Your task to perform on an android device: turn off smart reply in the gmail app Image 0: 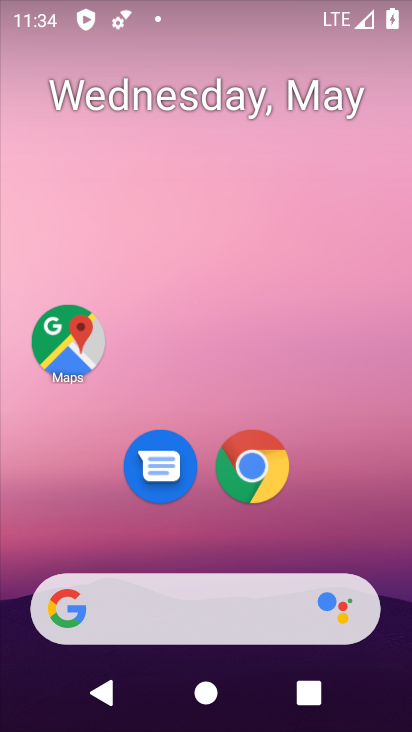
Step 0: drag from (236, 537) to (199, 28)
Your task to perform on an android device: turn off smart reply in the gmail app Image 1: 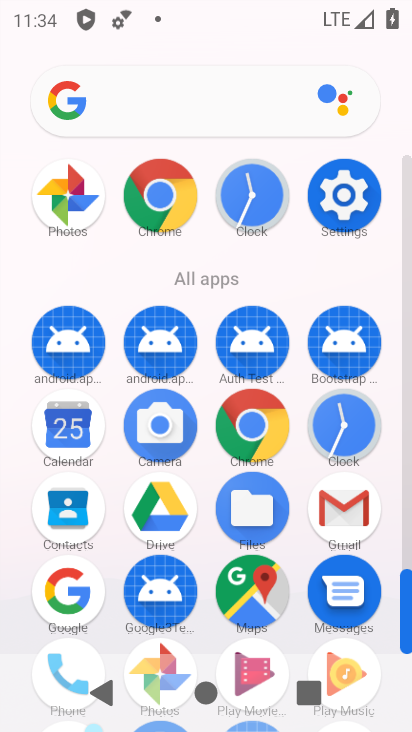
Step 1: click (354, 513)
Your task to perform on an android device: turn off smart reply in the gmail app Image 2: 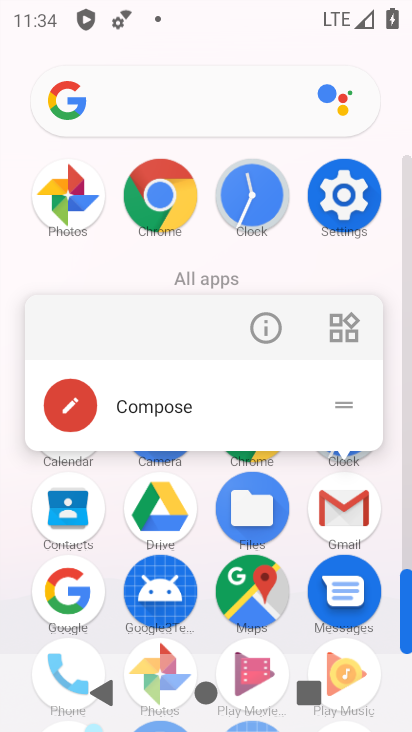
Step 2: click (334, 499)
Your task to perform on an android device: turn off smart reply in the gmail app Image 3: 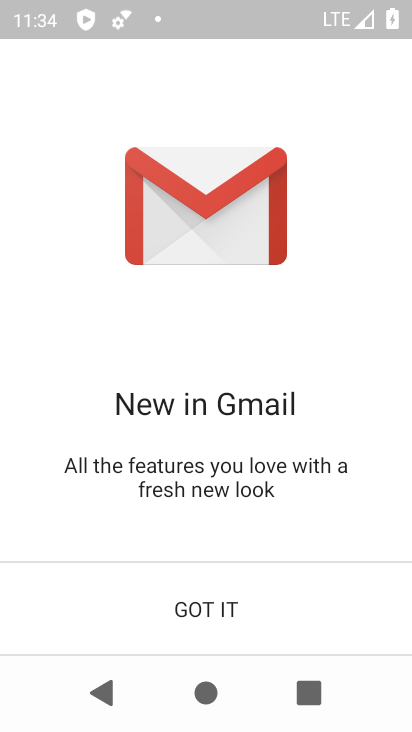
Step 3: click (261, 599)
Your task to perform on an android device: turn off smart reply in the gmail app Image 4: 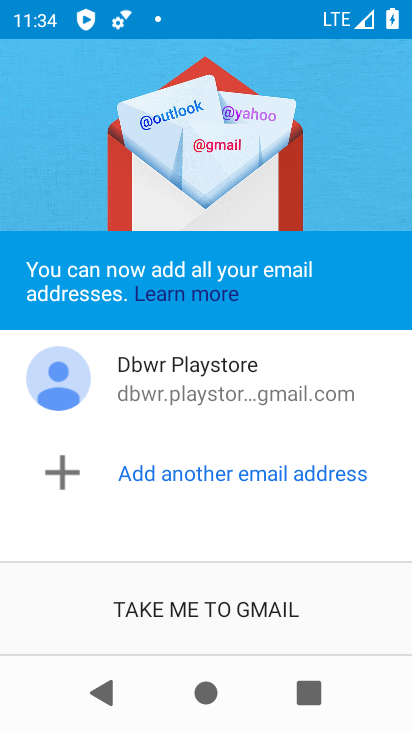
Step 4: click (229, 631)
Your task to perform on an android device: turn off smart reply in the gmail app Image 5: 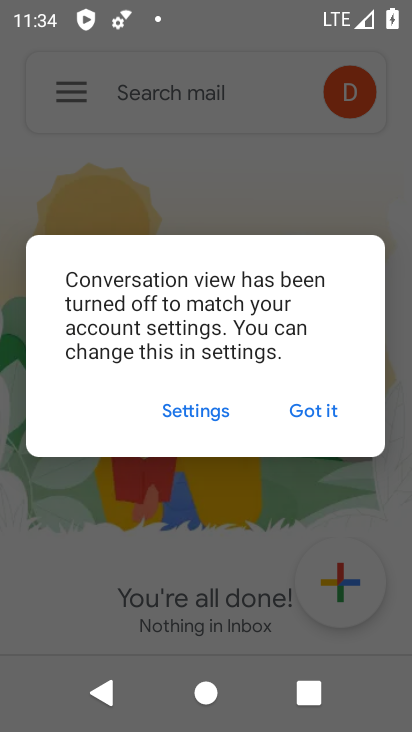
Step 5: click (305, 409)
Your task to perform on an android device: turn off smart reply in the gmail app Image 6: 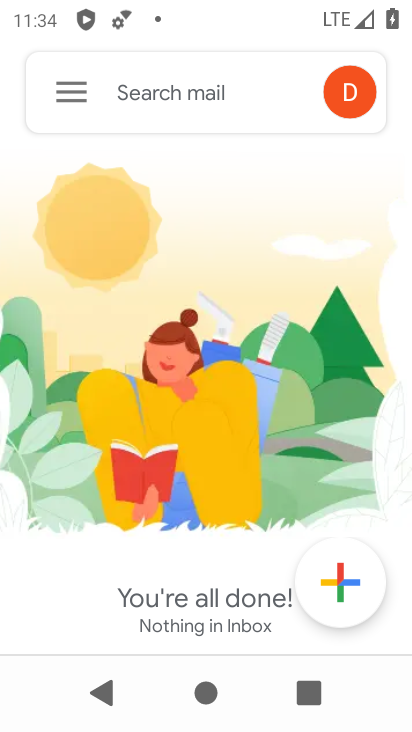
Step 6: click (67, 79)
Your task to perform on an android device: turn off smart reply in the gmail app Image 7: 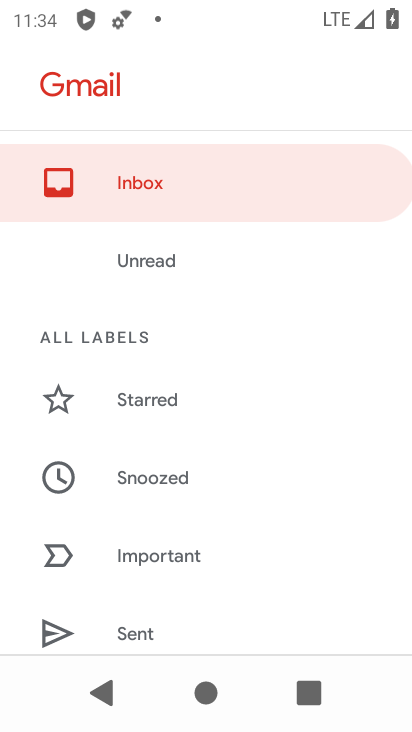
Step 7: drag from (141, 567) to (210, 25)
Your task to perform on an android device: turn off smart reply in the gmail app Image 8: 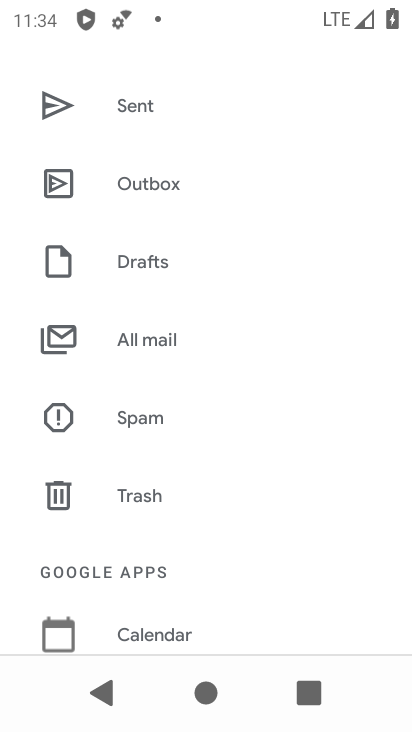
Step 8: drag from (174, 558) to (216, 0)
Your task to perform on an android device: turn off smart reply in the gmail app Image 9: 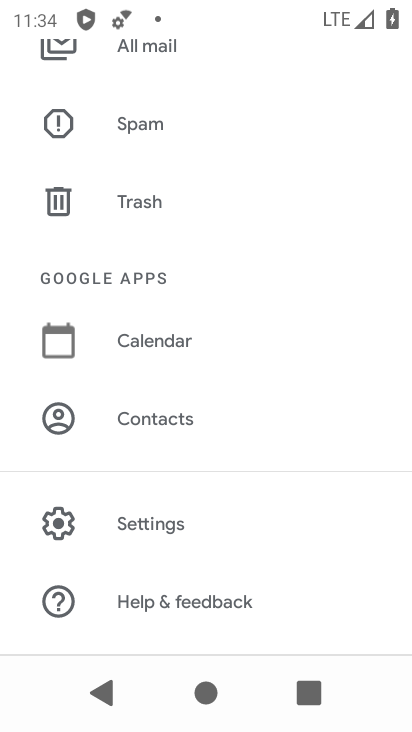
Step 9: click (166, 533)
Your task to perform on an android device: turn off smart reply in the gmail app Image 10: 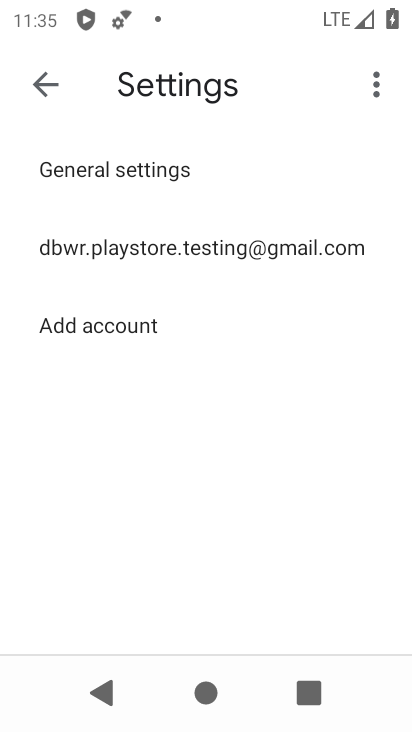
Step 10: click (195, 258)
Your task to perform on an android device: turn off smart reply in the gmail app Image 11: 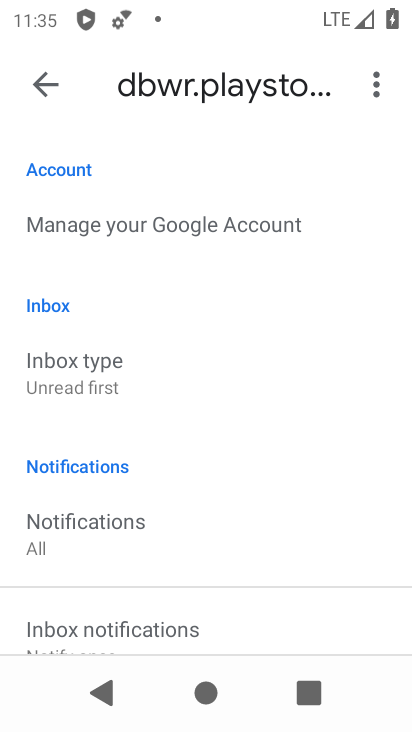
Step 11: task complete